Your task to perform on an android device: change your default location settings in chrome Image 0: 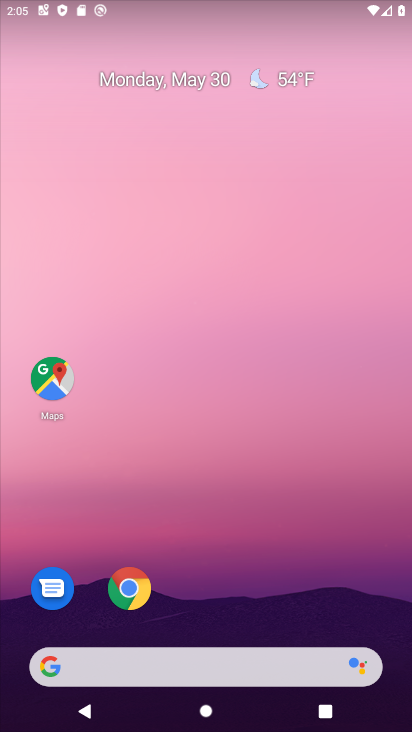
Step 0: drag from (239, 581) to (275, 56)
Your task to perform on an android device: change your default location settings in chrome Image 1: 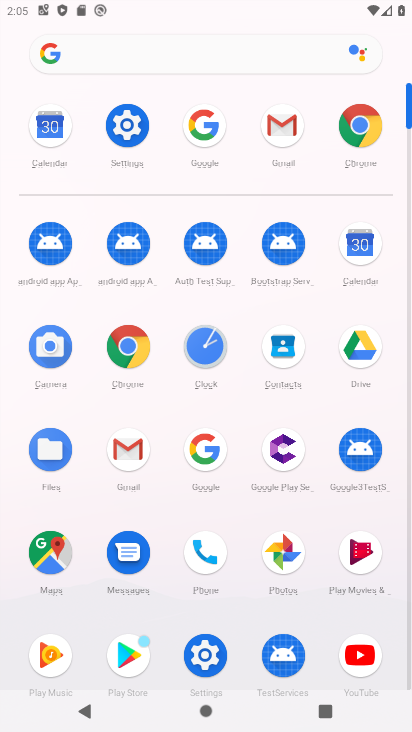
Step 1: click (127, 351)
Your task to perform on an android device: change your default location settings in chrome Image 2: 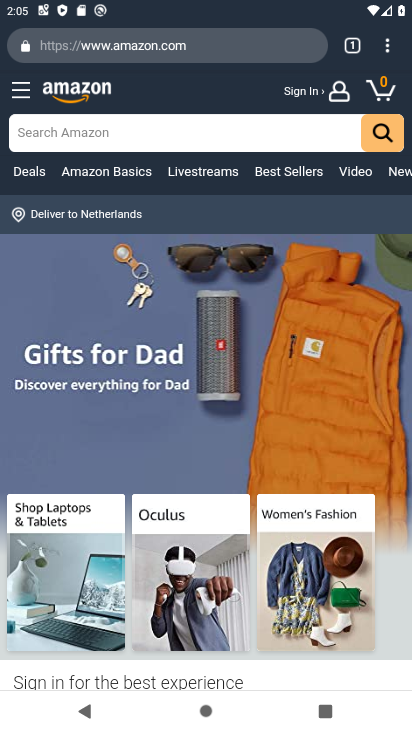
Step 2: click (383, 45)
Your task to perform on an android device: change your default location settings in chrome Image 3: 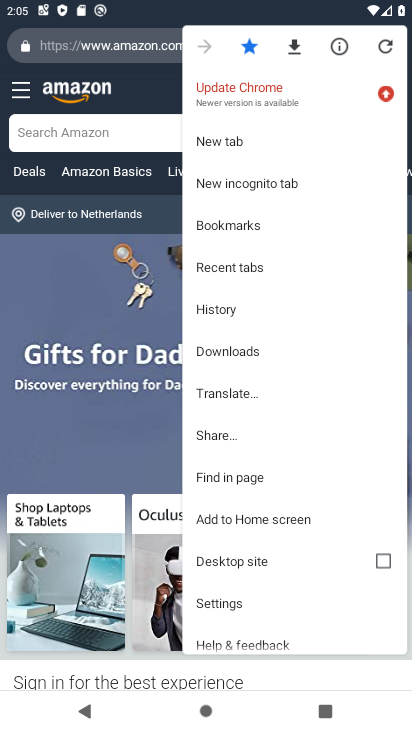
Step 3: click (239, 601)
Your task to perform on an android device: change your default location settings in chrome Image 4: 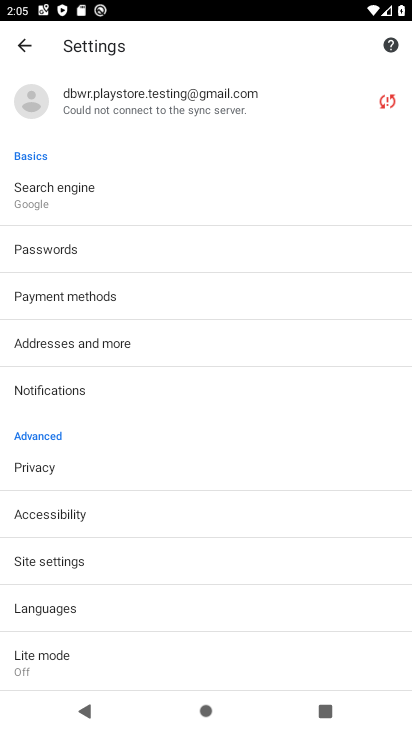
Step 4: drag from (193, 588) to (168, 376)
Your task to perform on an android device: change your default location settings in chrome Image 5: 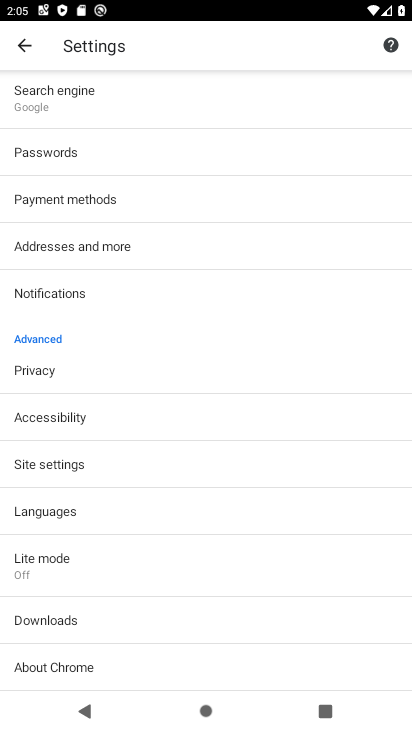
Step 5: click (77, 468)
Your task to perform on an android device: change your default location settings in chrome Image 6: 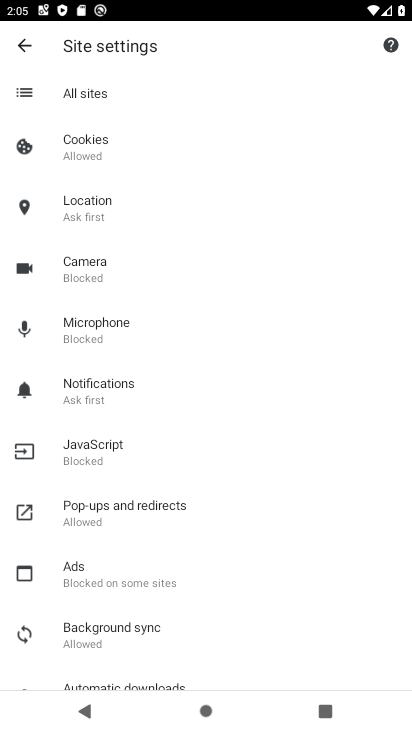
Step 6: click (181, 206)
Your task to perform on an android device: change your default location settings in chrome Image 7: 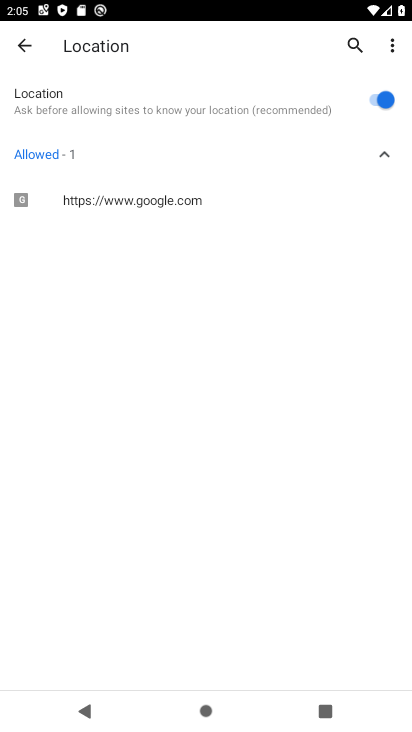
Step 7: click (373, 104)
Your task to perform on an android device: change your default location settings in chrome Image 8: 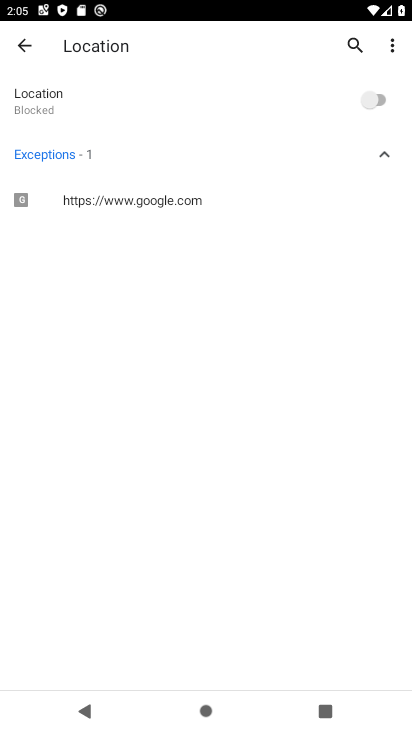
Step 8: task complete